Your task to perform on an android device: toggle pop-ups in chrome Image 0: 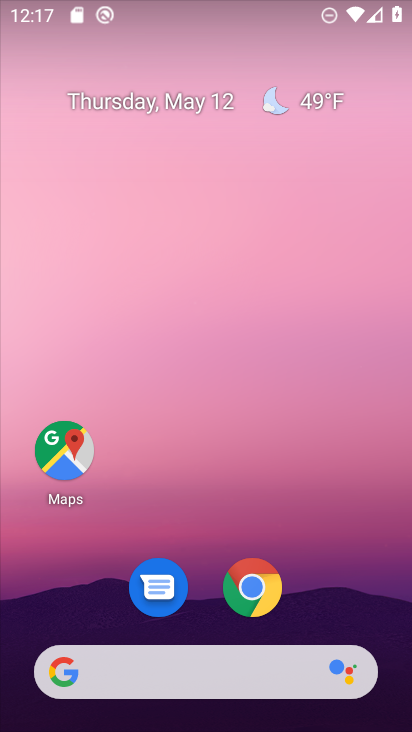
Step 0: drag from (344, 640) to (335, 272)
Your task to perform on an android device: toggle pop-ups in chrome Image 1: 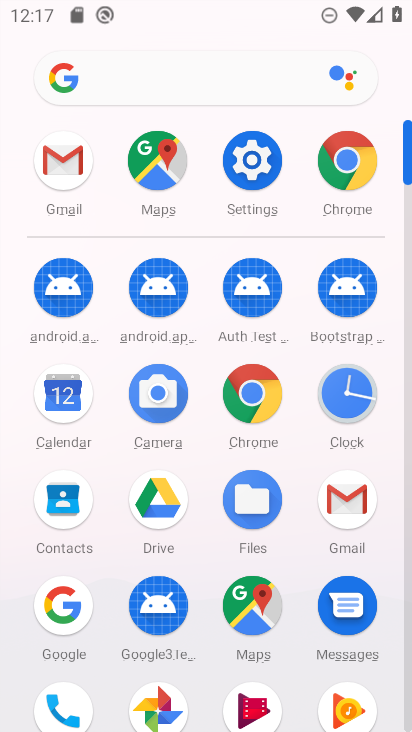
Step 1: click (337, 165)
Your task to perform on an android device: toggle pop-ups in chrome Image 2: 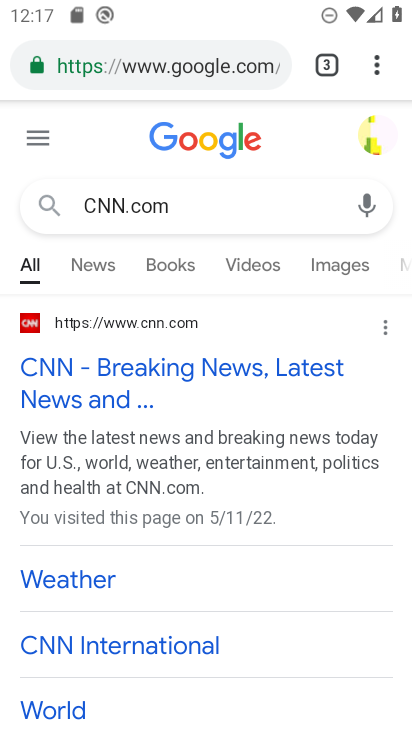
Step 2: click (368, 59)
Your task to perform on an android device: toggle pop-ups in chrome Image 3: 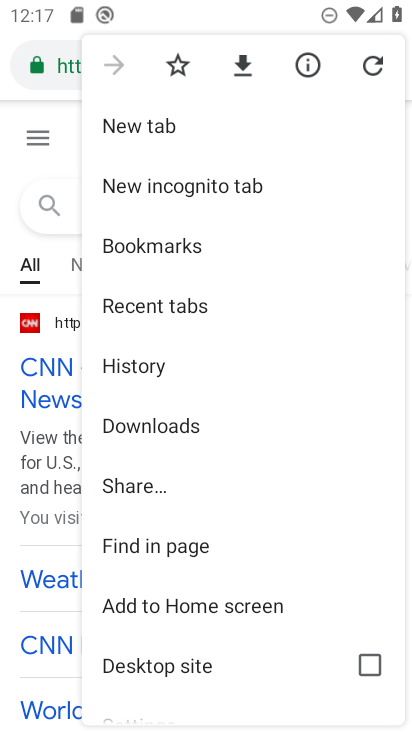
Step 3: drag from (195, 649) to (236, 217)
Your task to perform on an android device: toggle pop-ups in chrome Image 4: 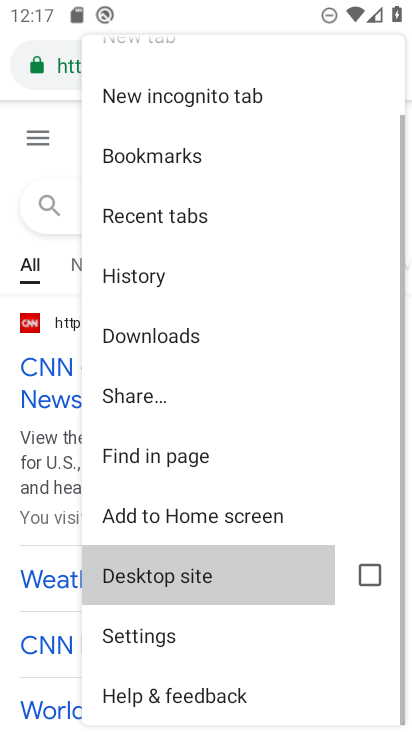
Step 4: drag from (247, 609) to (267, 421)
Your task to perform on an android device: toggle pop-ups in chrome Image 5: 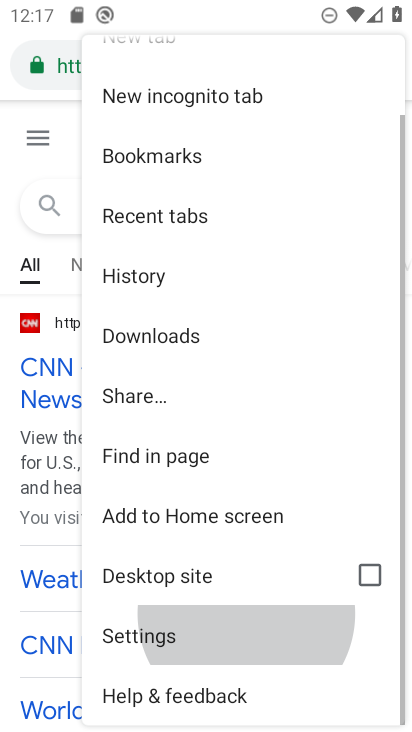
Step 5: drag from (233, 604) to (258, 210)
Your task to perform on an android device: toggle pop-ups in chrome Image 6: 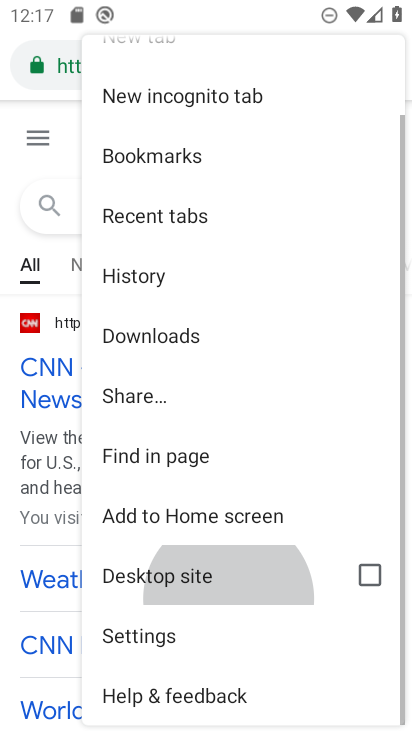
Step 6: drag from (238, 410) to (257, 280)
Your task to perform on an android device: toggle pop-ups in chrome Image 7: 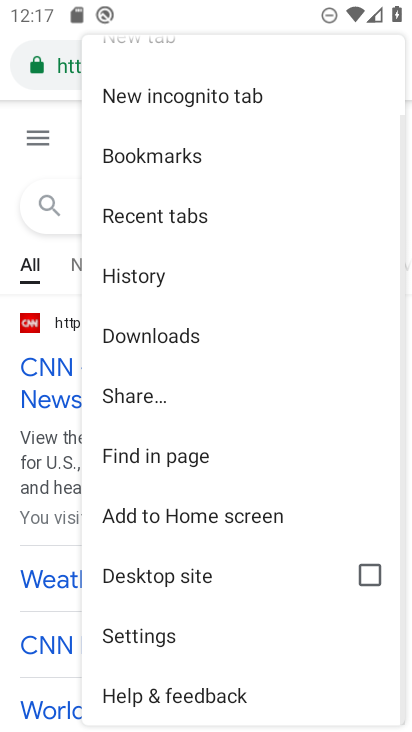
Step 7: click (186, 640)
Your task to perform on an android device: toggle pop-ups in chrome Image 8: 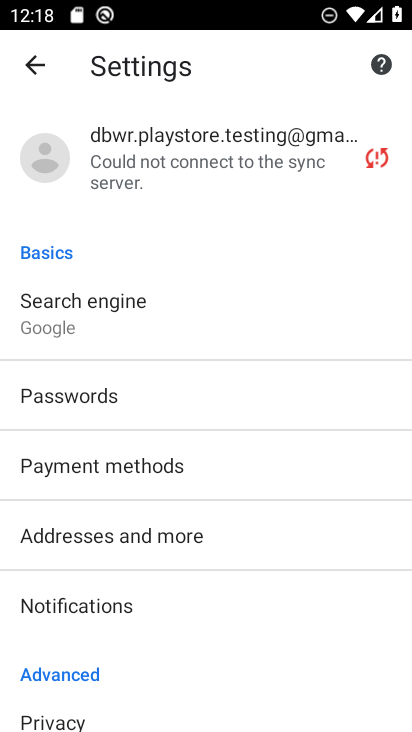
Step 8: drag from (177, 673) to (244, 63)
Your task to perform on an android device: toggle pop-ups in chrome Image 9: 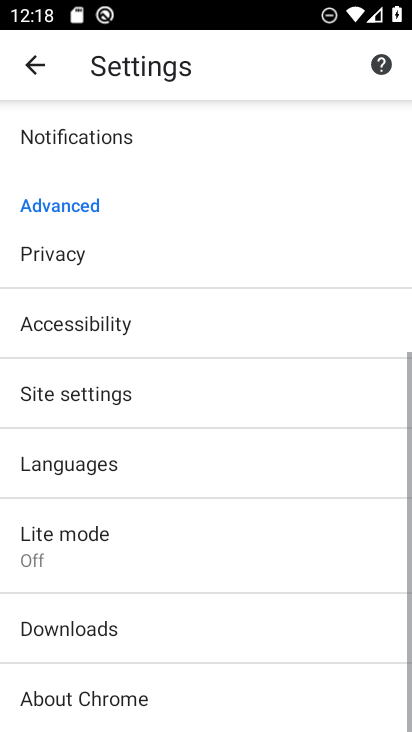
Step 9: drag from (268, 554) to (291, 172)
Your task to perform on an android device: toggle pop-ups in chrome Image 10: 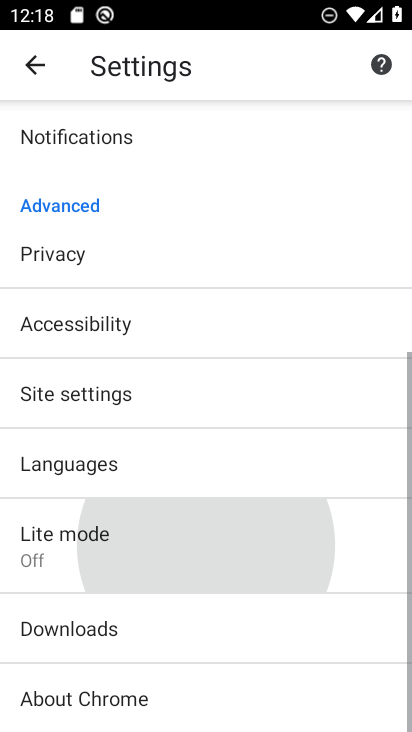
Step 10: drag from (210, 598) to (244, 171)
Your task to perform on an android device: toggle pop-ups in chrome Image 11: 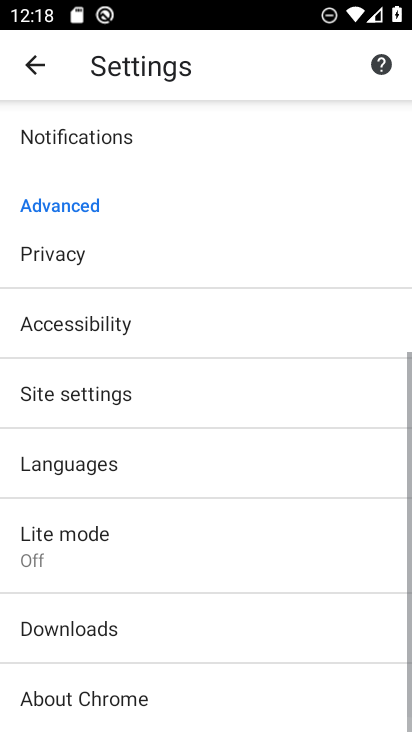
Step 11: drag from (221, 626) to (246, 213)
Your task to perform on an android device: toggle pop-ups in chrome Image 12: 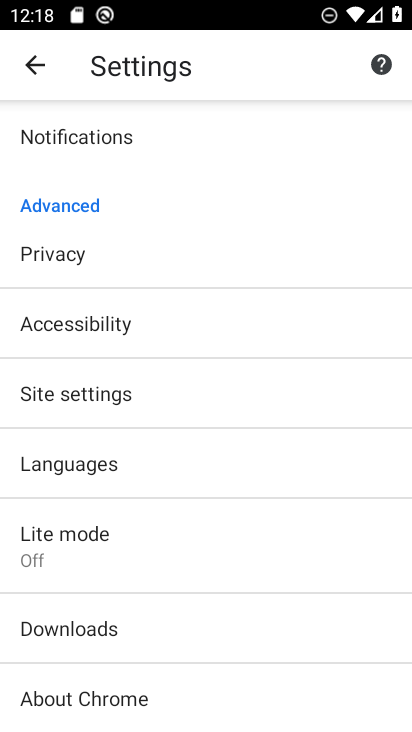
Step 12: click (135, 394)
Your task to perform on an android device: toggle pop-ups in chrome Image 13: 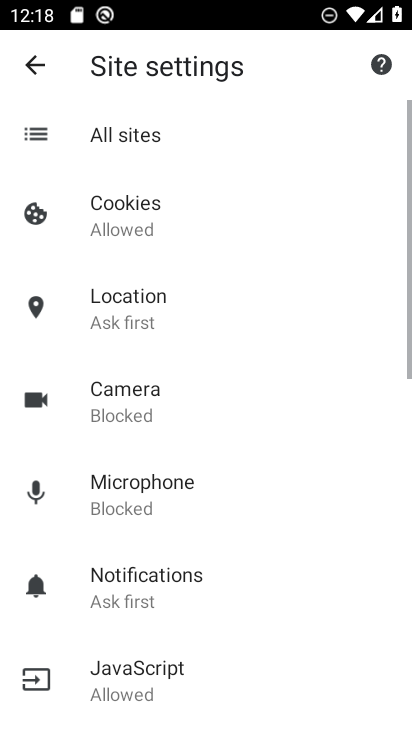
Step 13: task complete